Your task to perform on an android device: star an email in the gmail app Image 0: 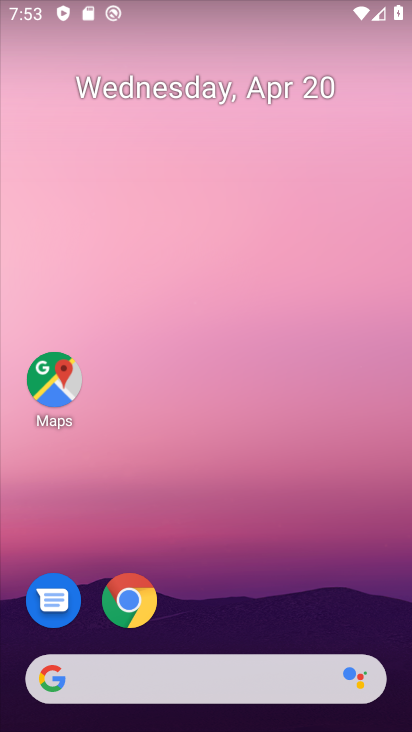
Step 0: drag from (221, 715) to (219, 27)
Your task to perform on an android device: star an email in the gmail app Image 1: 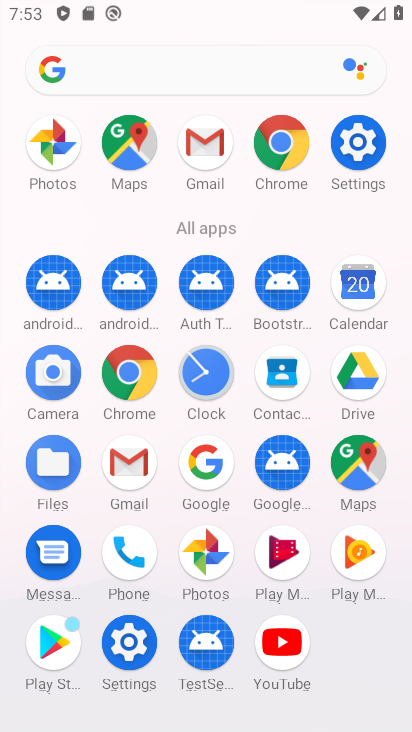
Step 1: click (206, 147)
Your task to perform on an android device: star an email in the gmail app Image 2: 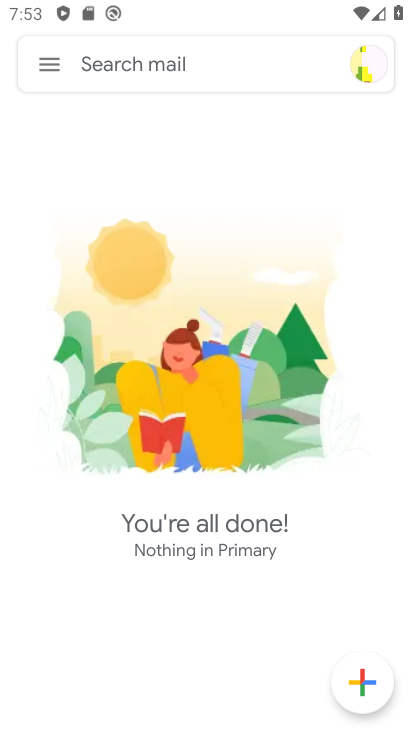
Step 2: task complete